Your task to perform on an android device: What's on my calendar tomorrow? Image 0: 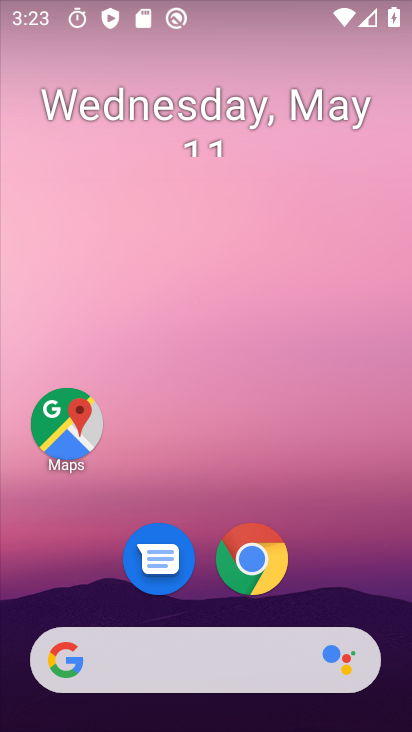
Step 0: drag from (339, 522) to (228, 3)
Your task to perform on an android device: What's on my calendar tomorrow? Image 1: 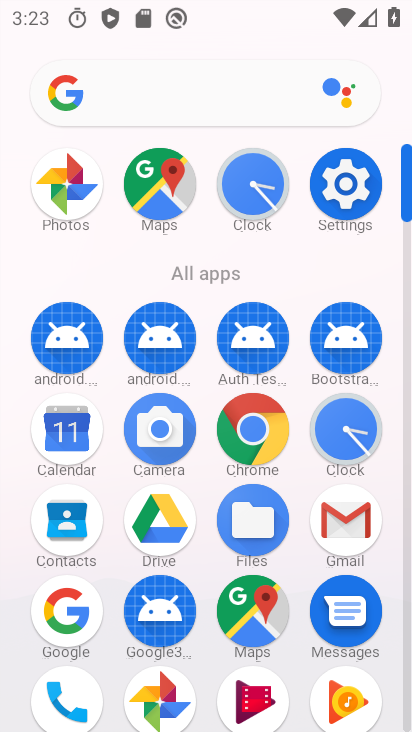
Step 1: click (54, 436)
Your task to perform on an android device: What's on my calendar tomorrow? Image 2: 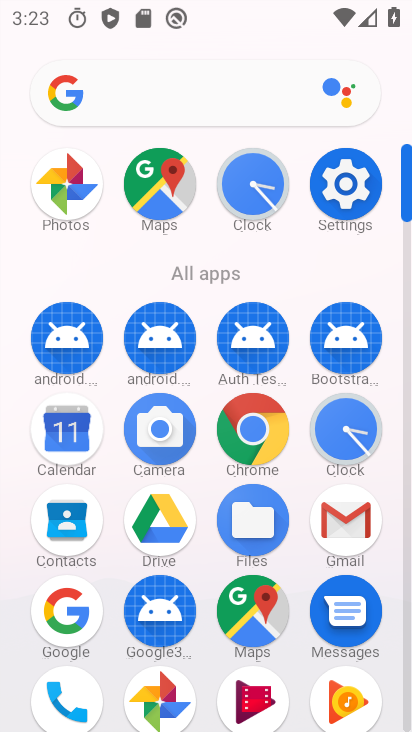
Step 2: click (57, 431)
Your task to perform on an android device: What's on my calendar tomorrow? Image 3: 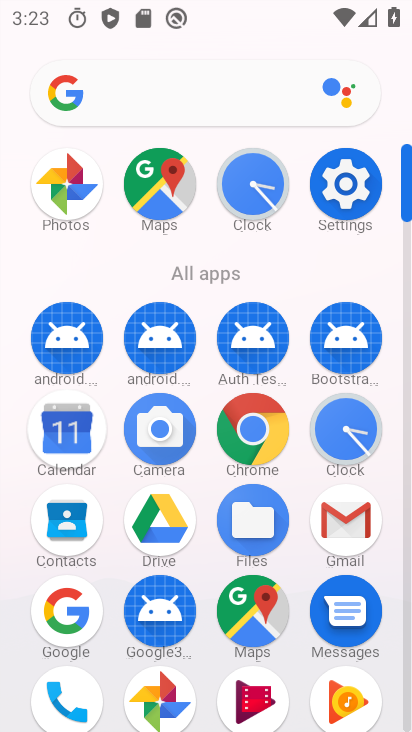
Step 3: click (57, 431)
Your task to perform on an android device: What's on my calendar tomorrow? Image 4: 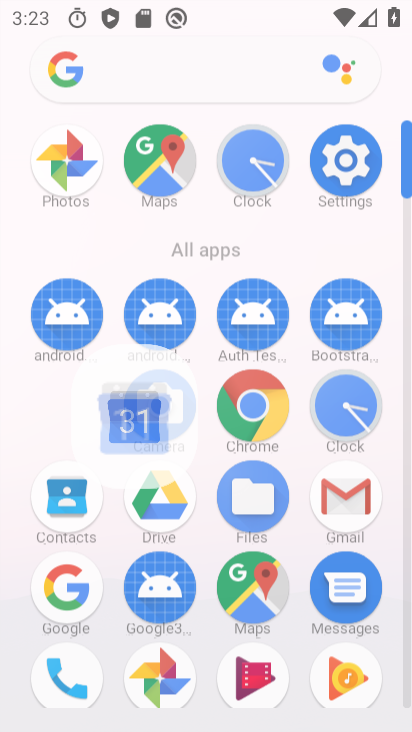
Step 4: click (58, 430)
Your task to perform on an android device: What's on my calendar tomorrow? Image 5: 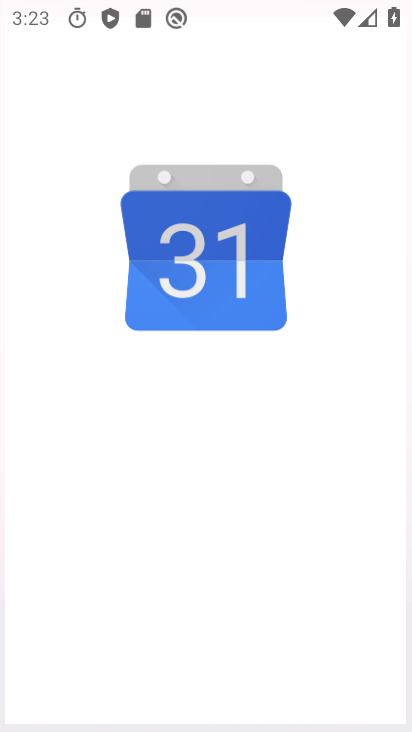
Step 5: click (9, 375)
Your task to perform on an android device: What's on my calendar tomorrow? Image 6: 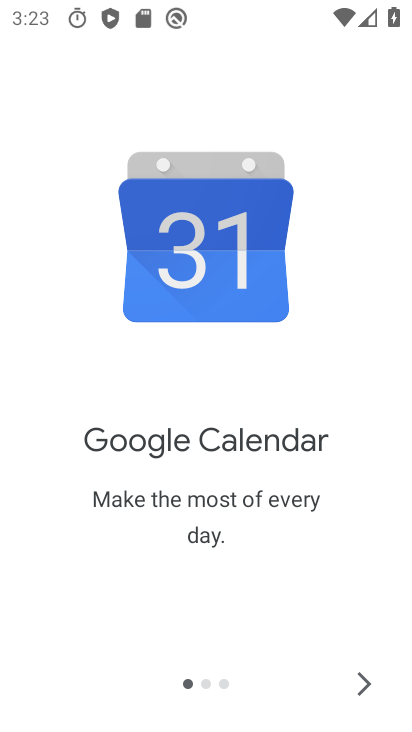
Step 6: click (366, 687)
Your task to perform on an android device: What's on my calendar tomorrow? Image 7: 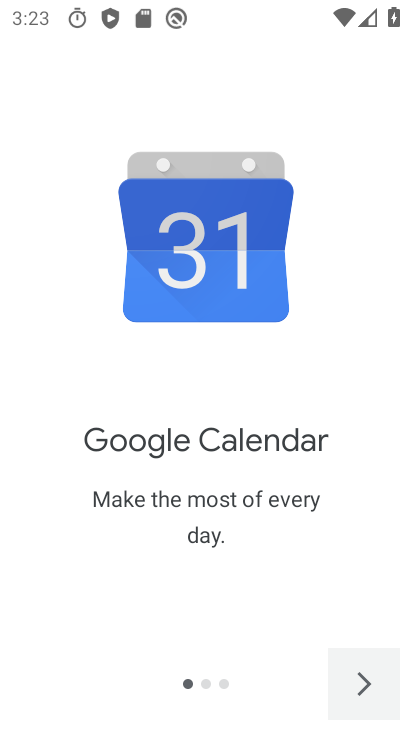
Step 7: click (365, 688)
Your task to perform on an android device: What's on my calendar tomorrow? Image 8: 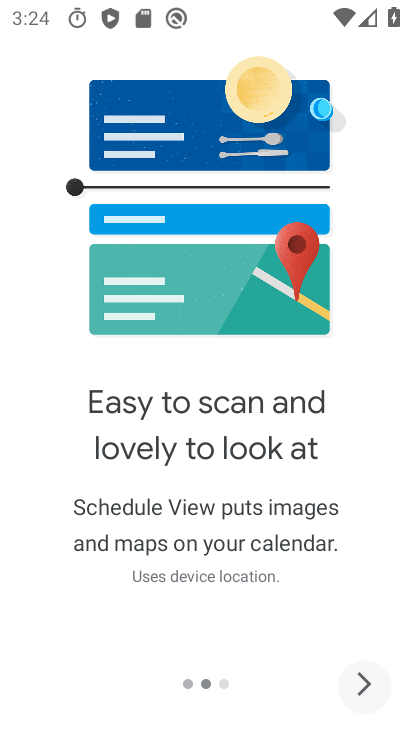
Step 8: click (369, 686)
Your task to perform on an android device: What's on my calendar tomorrow? Image 9: 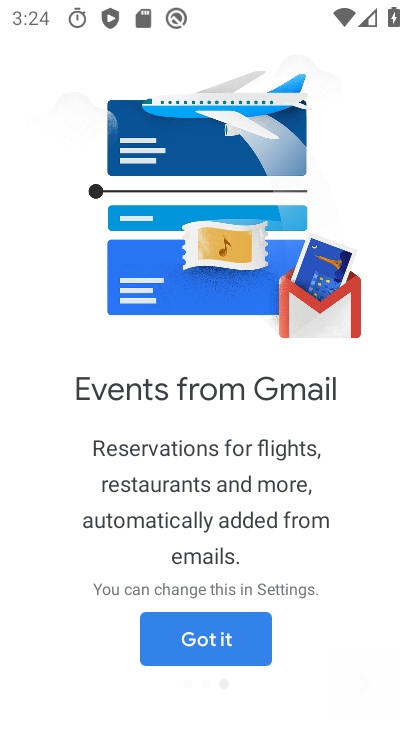
Step 9: click (370, 682)
Your task to perform on an android device: What's on my calendar tomorrow? Image 10: 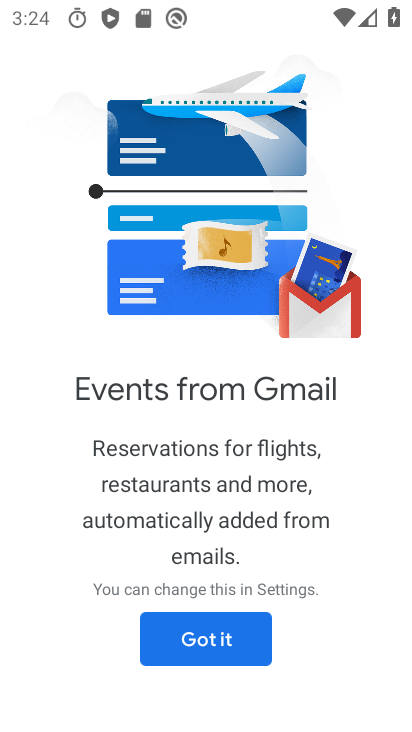
Step 10: click (370, 682)
Your task to perform on an android device: What's on my calendar tomorrow? Image 11: 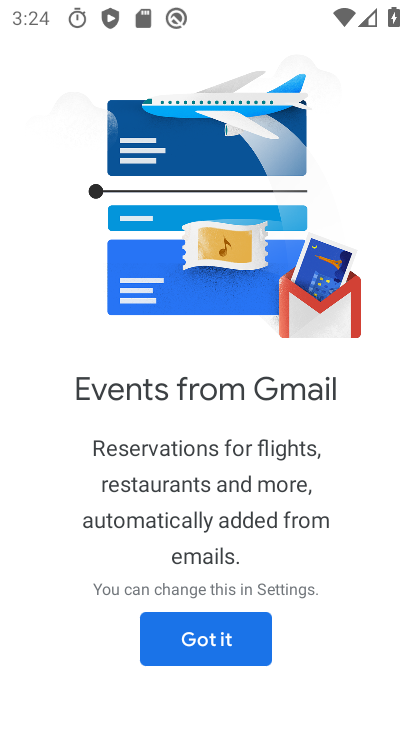
Step 11: click (370, 680)
Your task to perform on an android device: What's on my calendar tomorrow? Image 12: 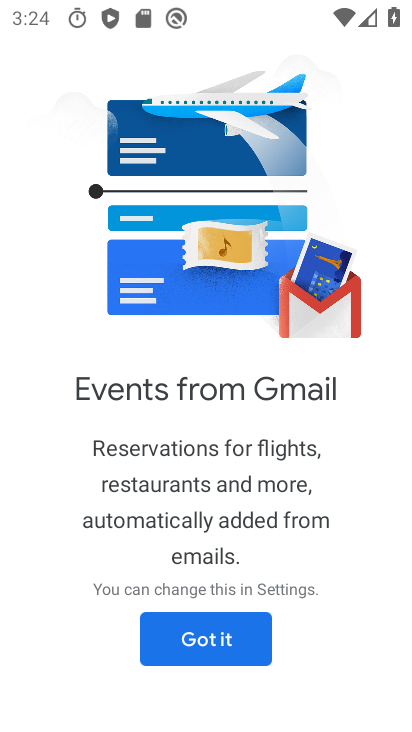
Step 12: click (227, 617)
Your task to perform on an android device: What's on my calendar tomorrow? Image 13: 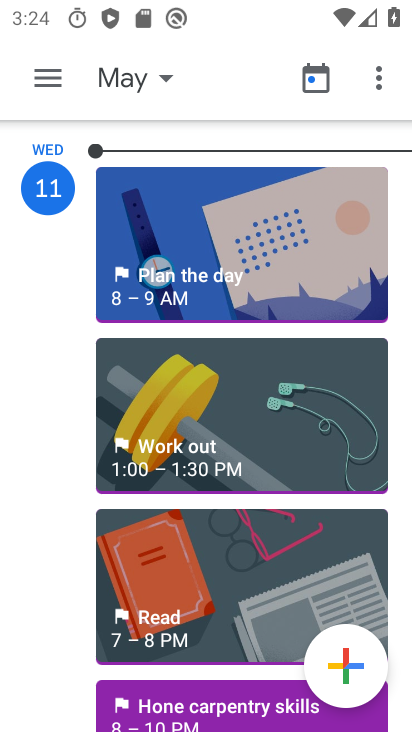
Step 13: drag from (234, 537) to (210, 170)
Your task to perform on an android device: What's on my calendar tomorrow? Image 14: 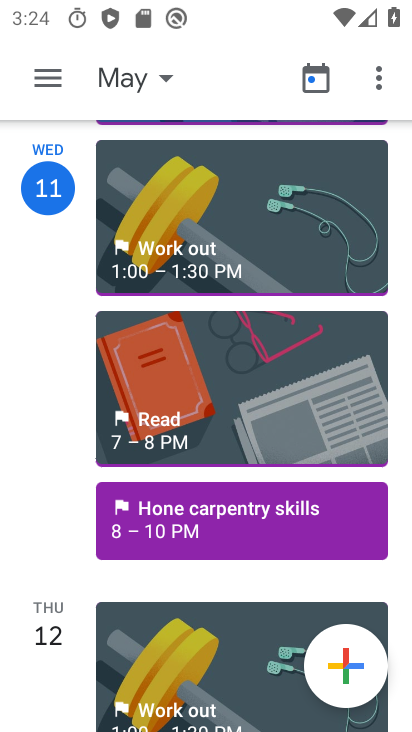
Step 14: drag from (207, 515) to (181, 158)
Your task to perform on an android device: What's on my calendar tomorrow? Image 15: 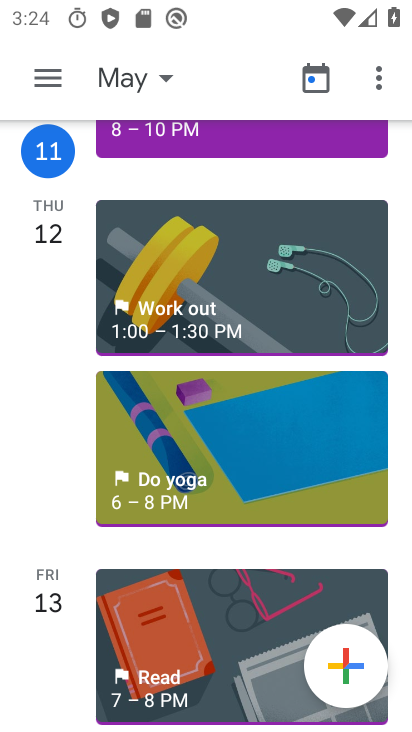
Step 15: click (152, 154)
Your task to perform on an android device: What's on my calendar tomorrow? Image 16: 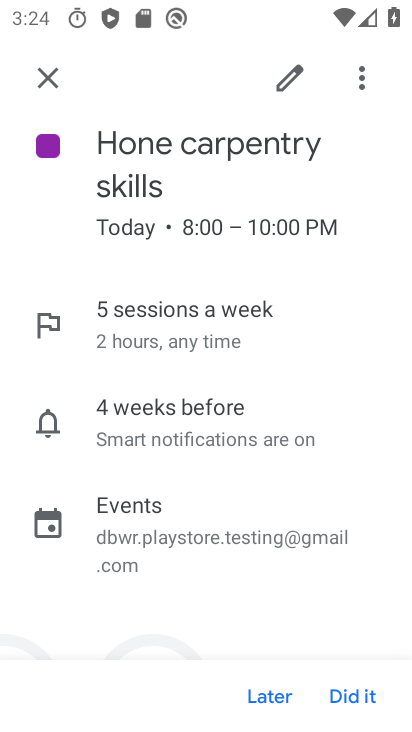
Step 16: task complete